Your task to perform on an android device: allow notifications from all sites in the chrome app Image 0: 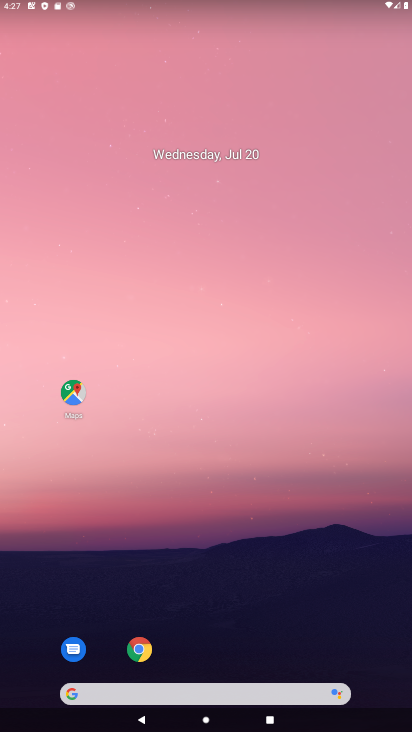
Step 0: drag from (257, 490) to (312, 16)
Your task to perform on an android device: allow notifications from all sites in the chrome app Image 1: 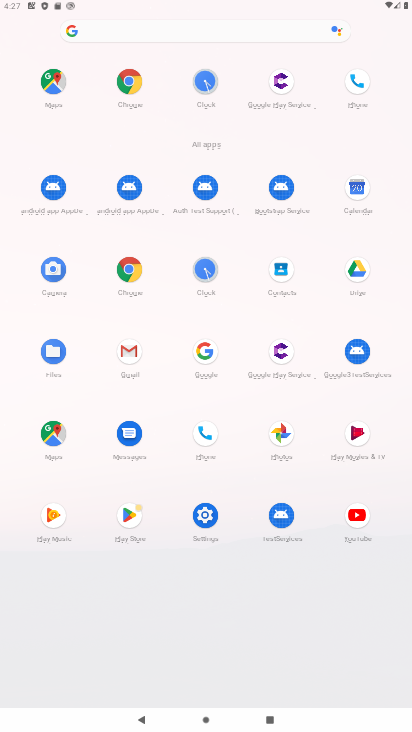
Step 1: click (134, 81)
Your task to perform on an android device: allow notifications from all sites in the chrome app Image 2: 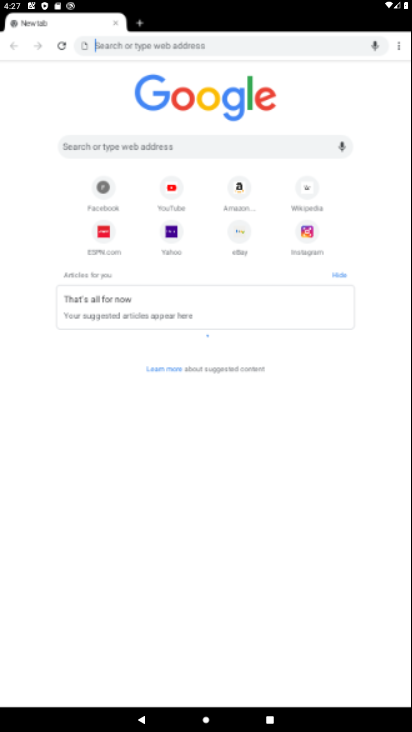
Step 2: click (398, 43)
Your task to perform on an android device: allow notifications from all sites in the chrome app Image 3: 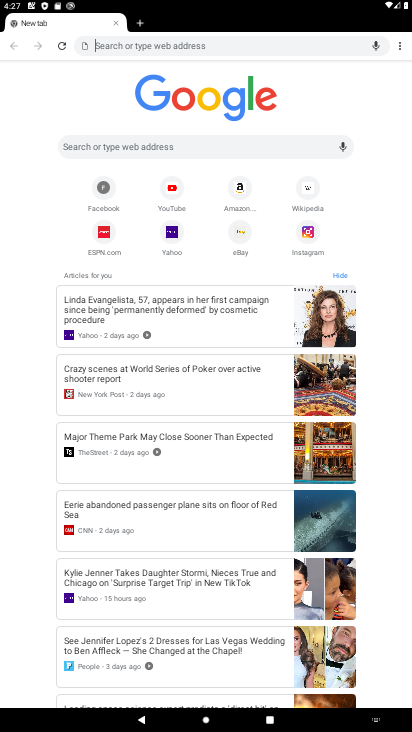
Step 3: click (395, 49)
Your task to perform on an android device: allow notifications from all sites in the chrome app Image 4: 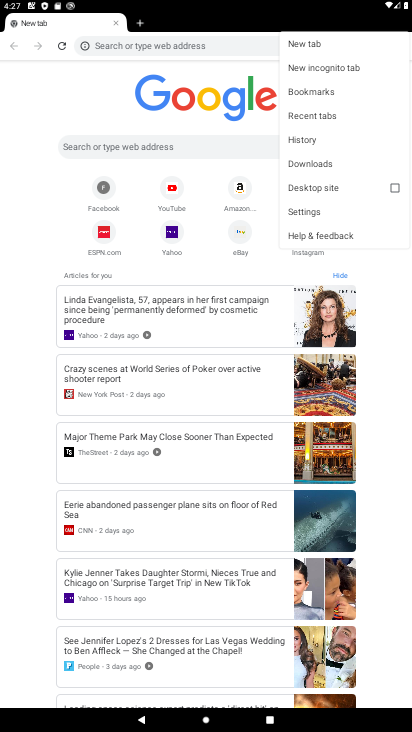
Step 4: click (304, 210)
Your task to perform on an android device: allow notifications from all sites in the chrome app Image 5: 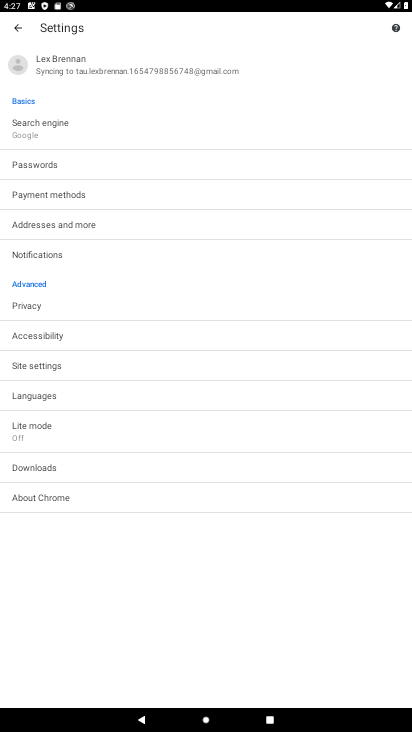
Step 5: click (36, 355)
Your task to perform on an android device: allow notifications from all sites in the chrome app Image 6: 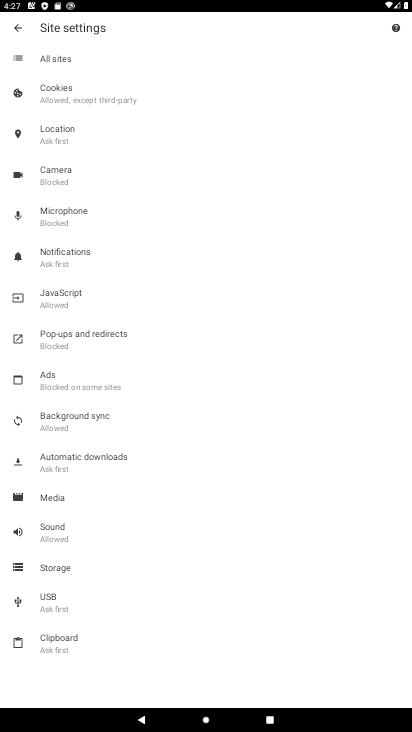
Step 6: click (69, 257)
Your task to perform on an android device: allow notifications from all sites in the chrome app Image 7: 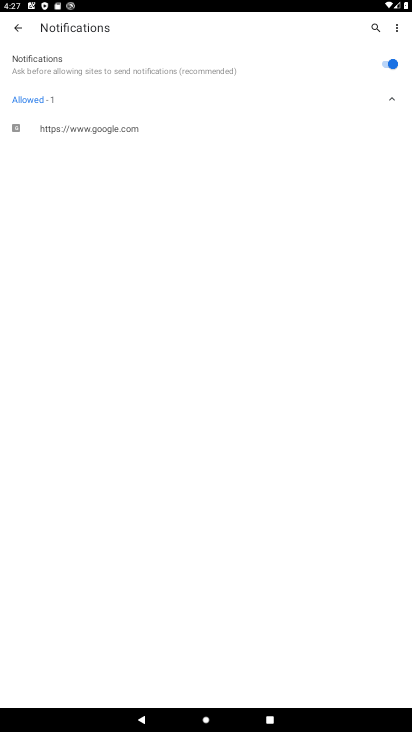
Step 7: task complete